Your task to perform on an android device: Clear all items from cart on newegg. Image 0: 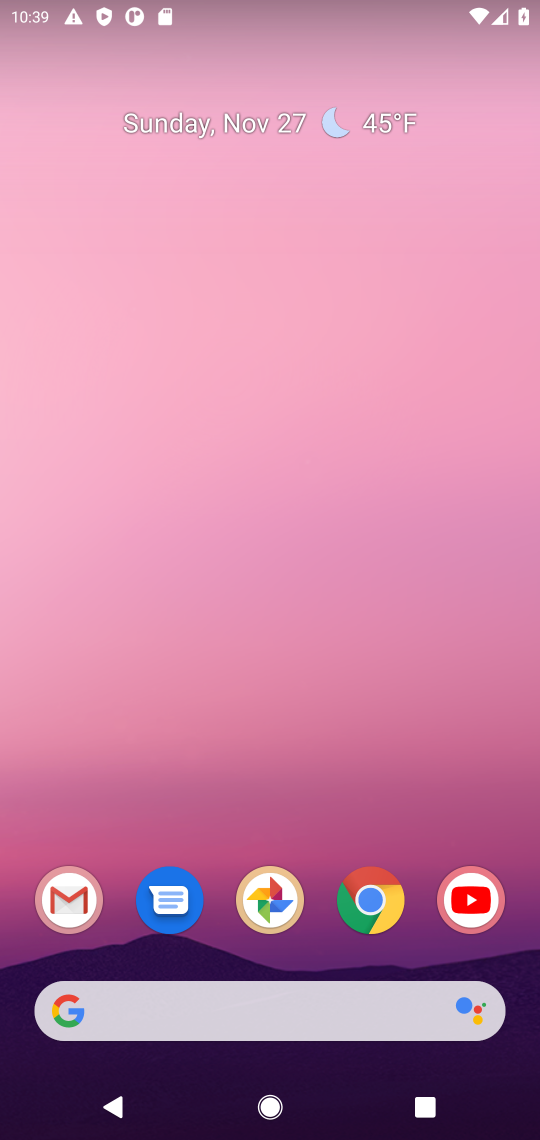
Step 0: click (376, 902)
Your task to perform on an android device: Clear all items from cart on newegg. Image 1: 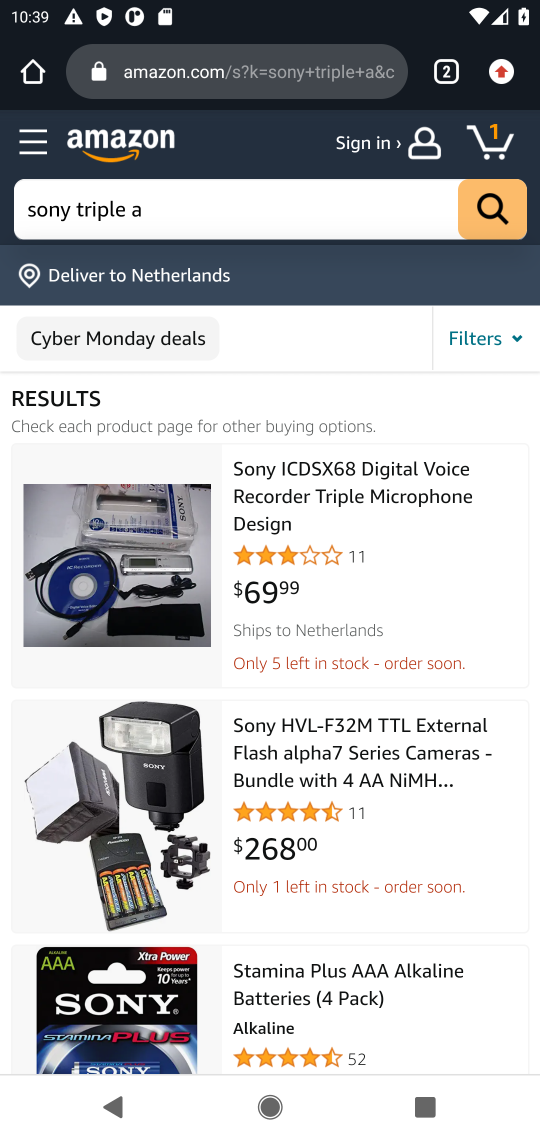
Step 1: click (235, 83)
Your task to perform on an android device: Clear all items from cart on newegg. Image 2: 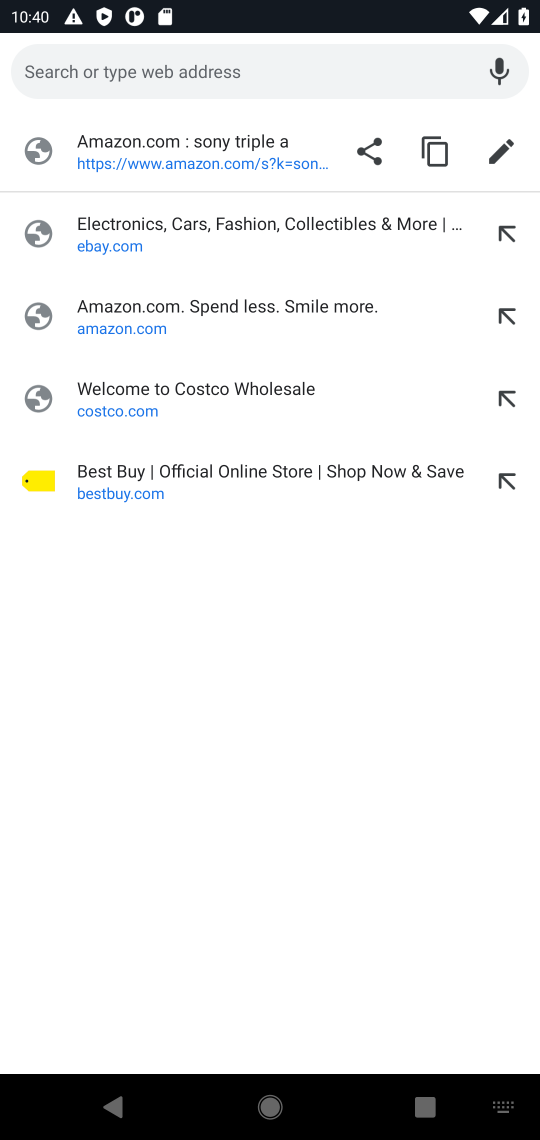
Step 2: type "newegg.com"
Your task to perform on an android device: Clear all items from cart on newegg. Image 3: 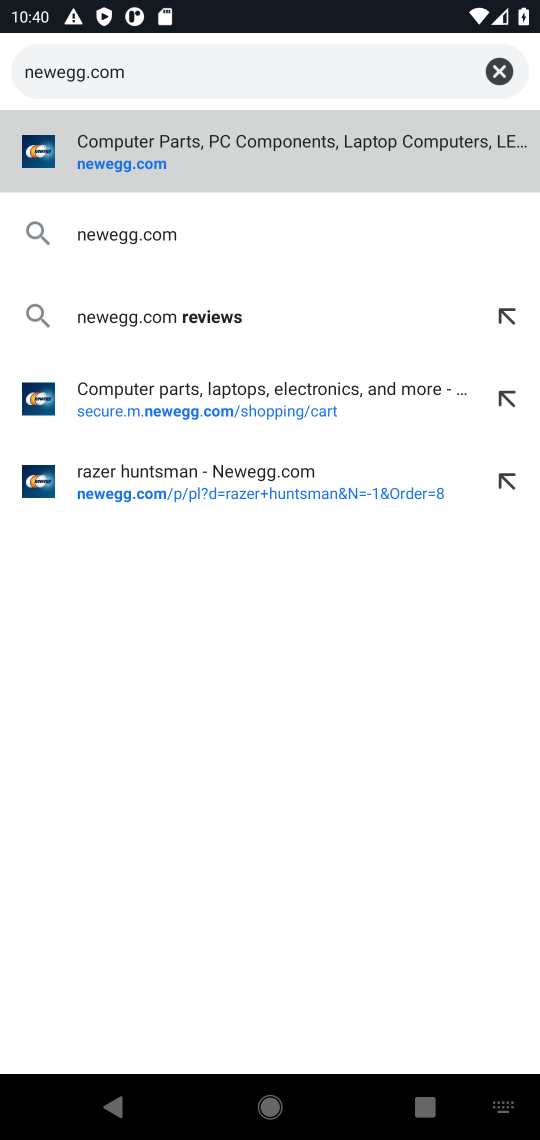
Step 3: click (149, 153)
Your task to perform on an android device: Clear all items from cart on newegg. Image 4: 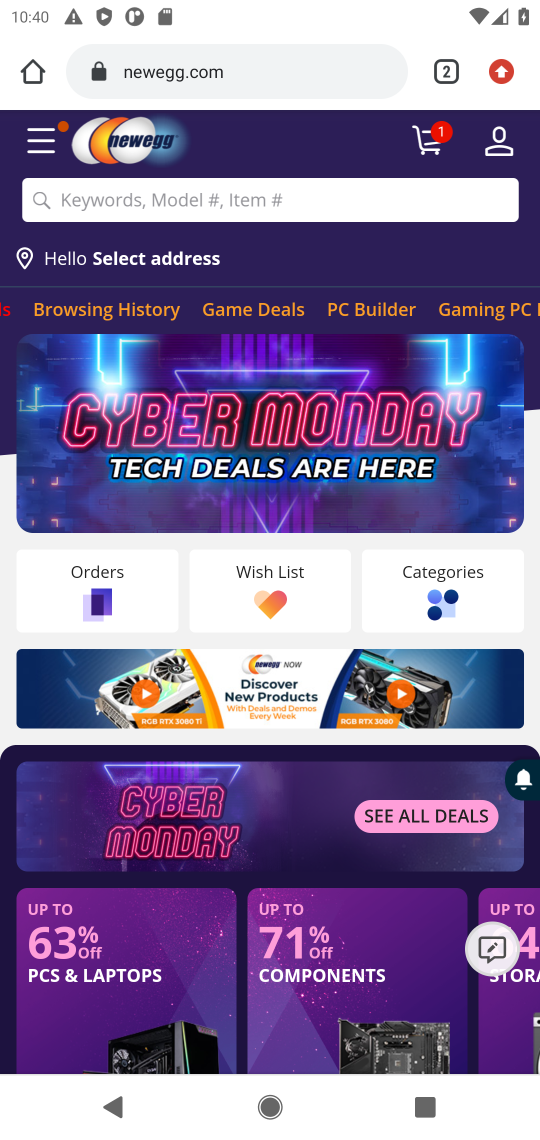
Step 4: click (441, 141)
Your task to perform on an android device: Clear all items from cart on newegg. Image 5: 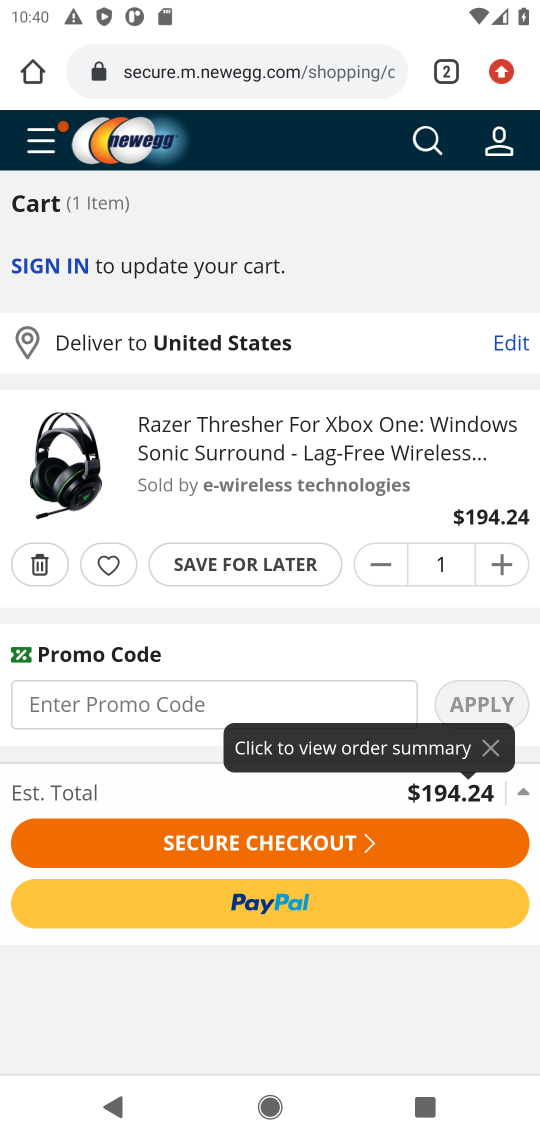
Step 5: click (44, 564)
Your task to perform on an android device: Clear all items from cart on newegg. Image 6: 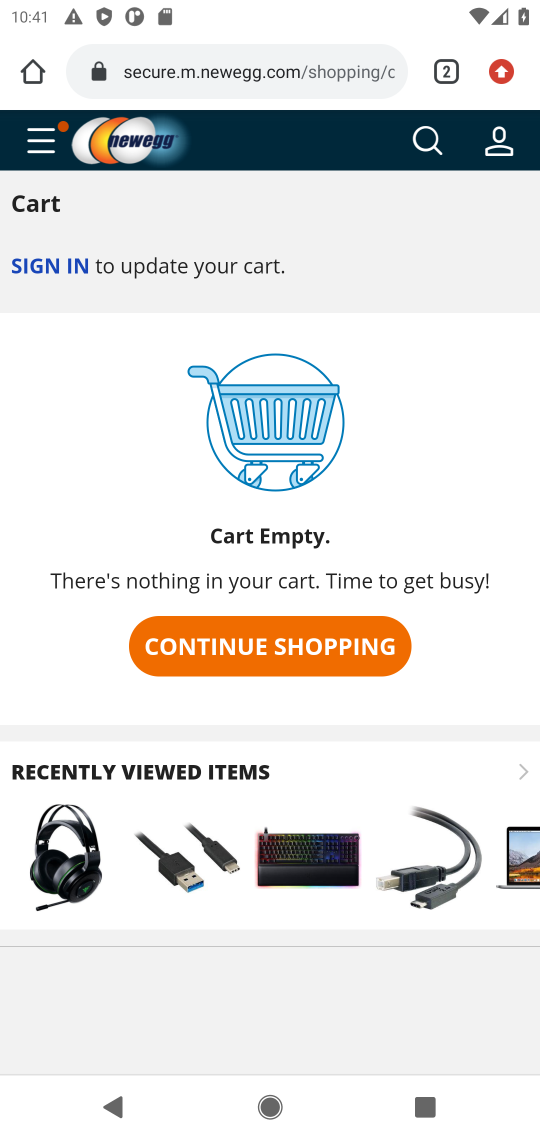
Step 6: task complete